Your task to perform on an android device: turn off notifications settings in the gmail app Image 0: 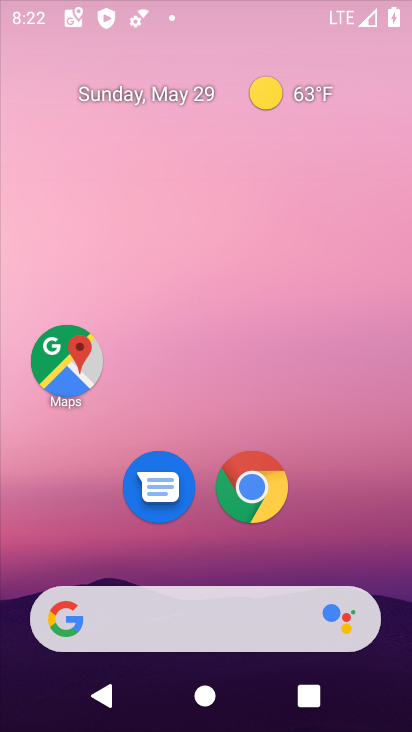
Step 0: drag from (234, 522) to (285, 97)
Your task to perform on an android device: turn off notifications settings in the gmail app Image 1: 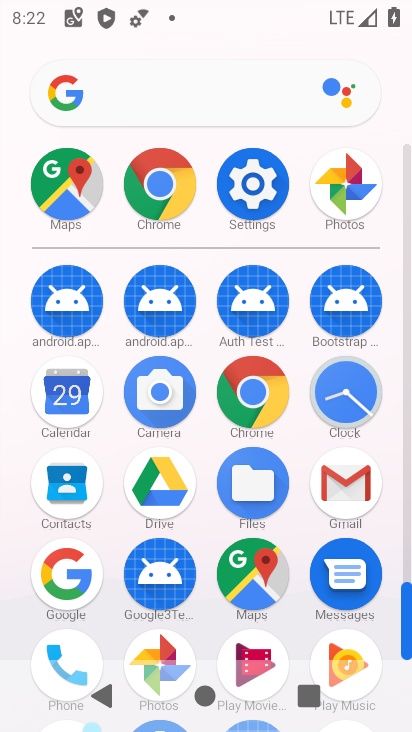
Step 1: click (355, 497)
Your task to perform on an android device: turn off notifications settings in the gmail app Image 2: 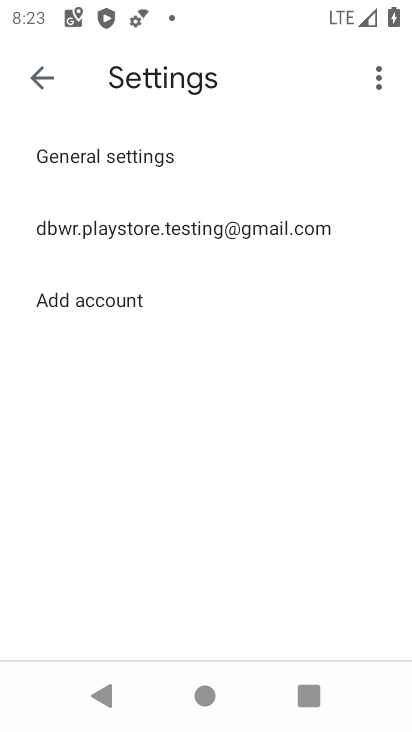
Step 2: click (189, 139)
Your task to perform on an android device: turn off notifications settings in the gmail app Image 3: 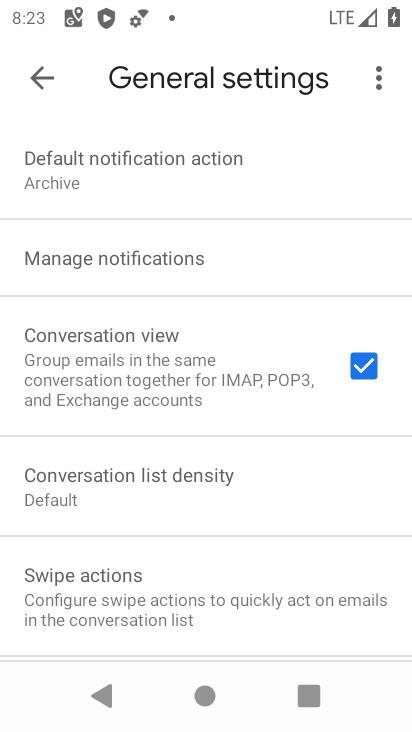
Step 3: click (197, 263)
Your task to perform on an android device: turn off notifications settings in the gmail app Image 4: 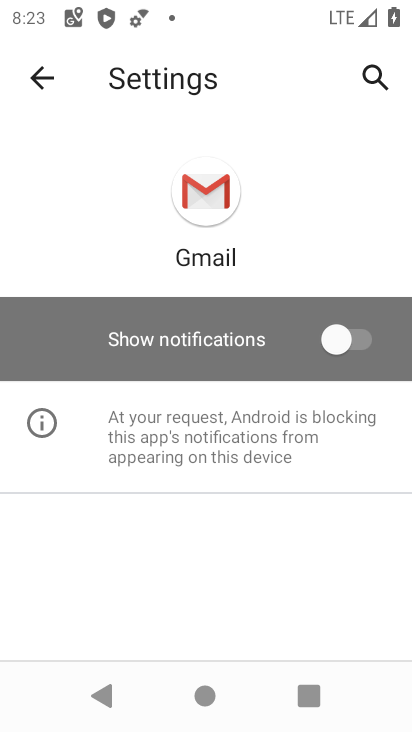
Step 4: task complete